Your task to perform on an android device: allow notifications from all sites in the chrome app Image 0: 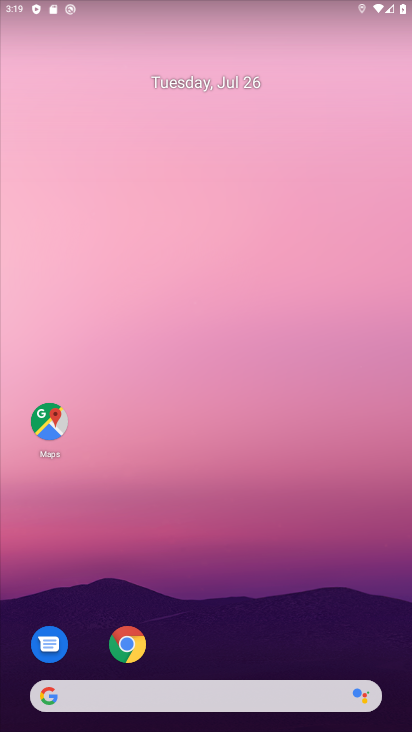
Step 0: click (204, 235)
Your task to perform on an android device: allow notifications from all sites in the chrome app Image 1: 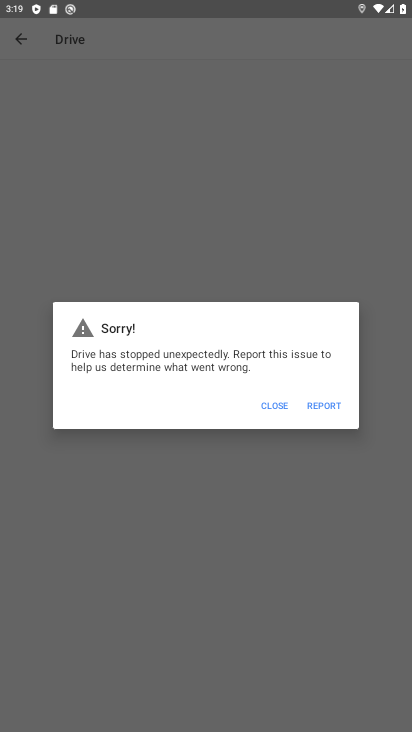
Step 1: press home button
Your task to perform on an android device: allow notifications from all sites in the chrome app Image 2: 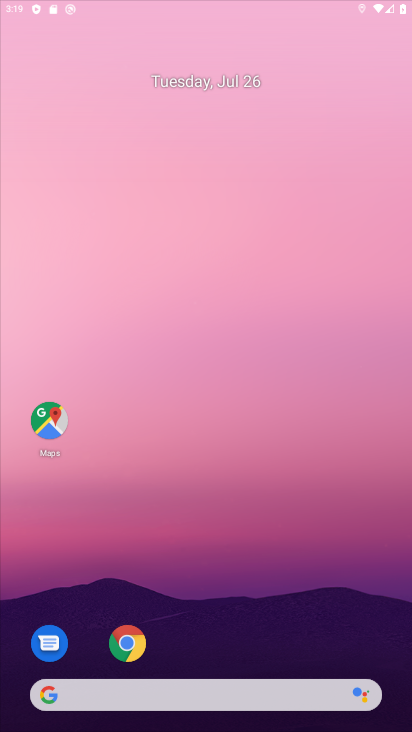
Step 2: drag from (283, 524) to (320, 148)
Your task to perform on an android device: allow notifications from all sites in the chrome app Image 3: 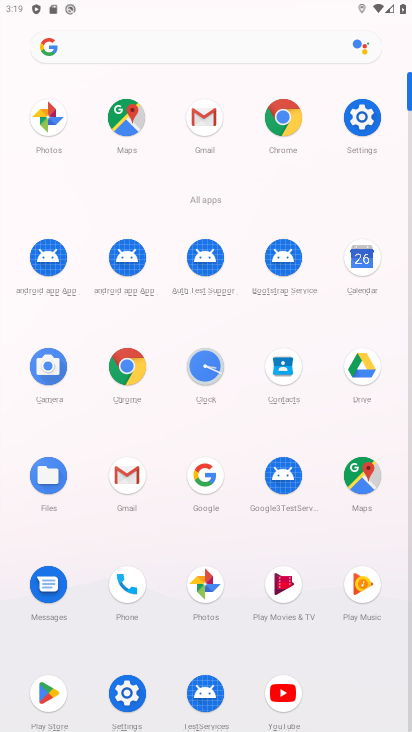
Step 3: click (123, 367)
Your task to perform on an android device: allow notifications from all sites in the chrome app Image 4: 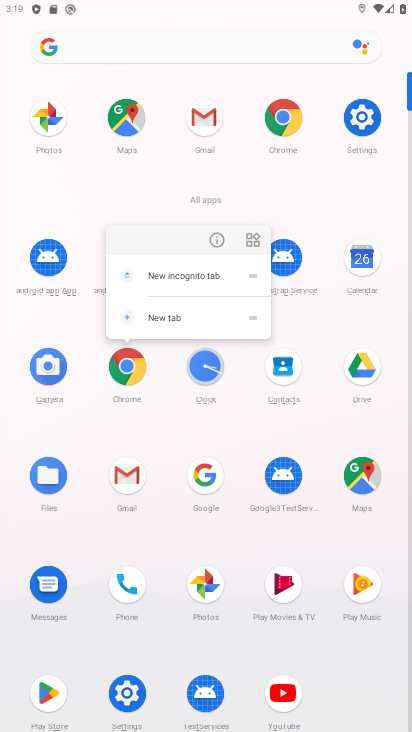
Step 4: click (220, 240)
Your task to perform on an android device: allow notifications from all sites in the chrome app Image 5: 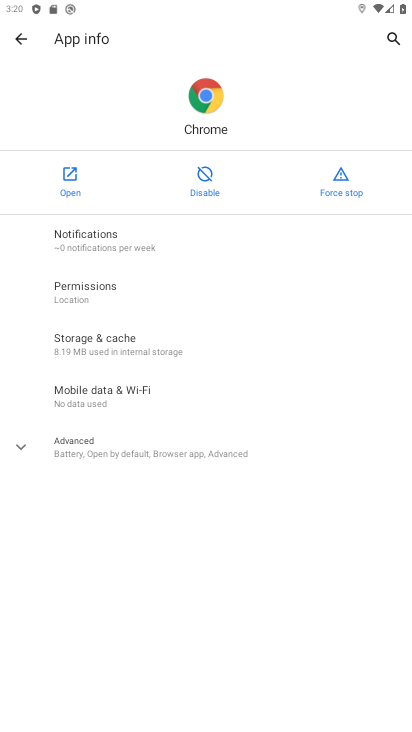
Step 5: click (73, 188)
Your task to perform on an android device: allow notifications from all sites in the chrome app Image 6: 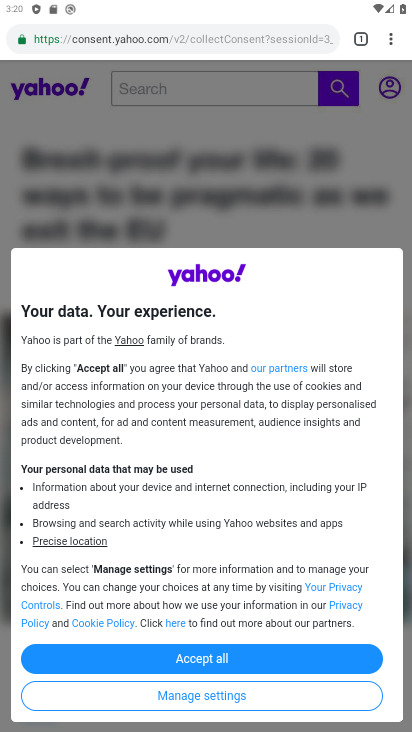
Step 6: drag from (228, 539) to (221, 293)
Your task to perform on an android device: allow notifications from all sites in the chrome app Image 7: 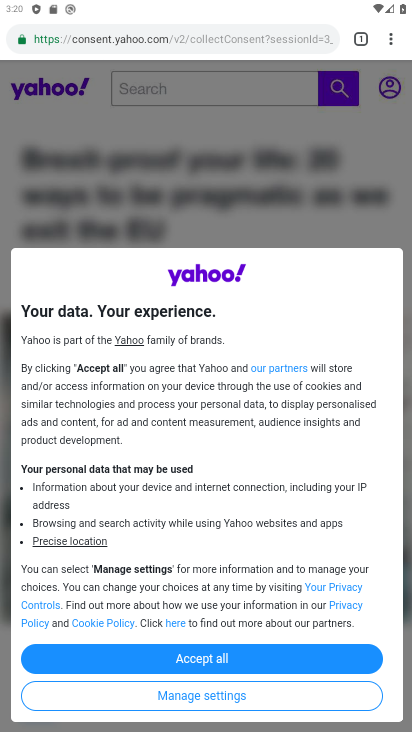
Step 7: drag from (392, 37) to (279, 470)
Your task to perform on an android device: allow notifications from all sites in the chrome app Image 8: 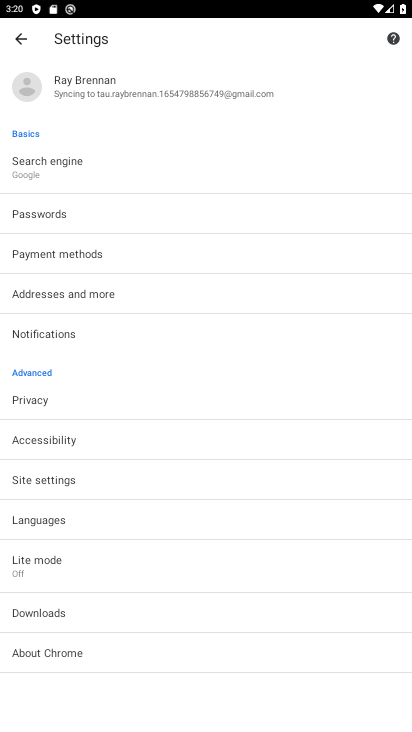
Step 8: click (83, 487)
Your task to perform on an android device: allow notifications from all sites in the chrome app Image 9: 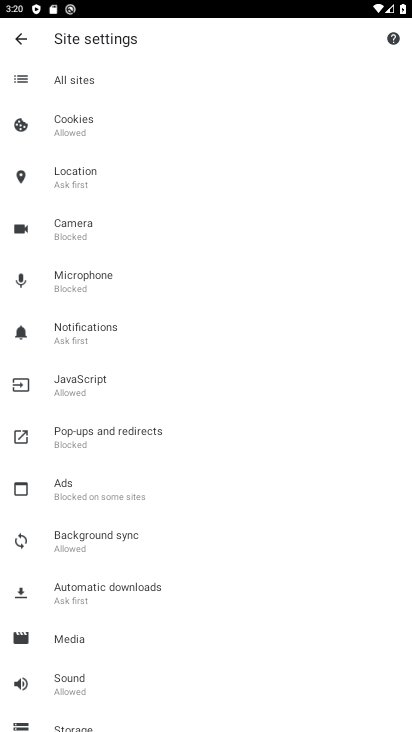
Step 9: click (95, 337)
Your task to perform on an android device: allow notifications from all sites in the chrome app Image 10: 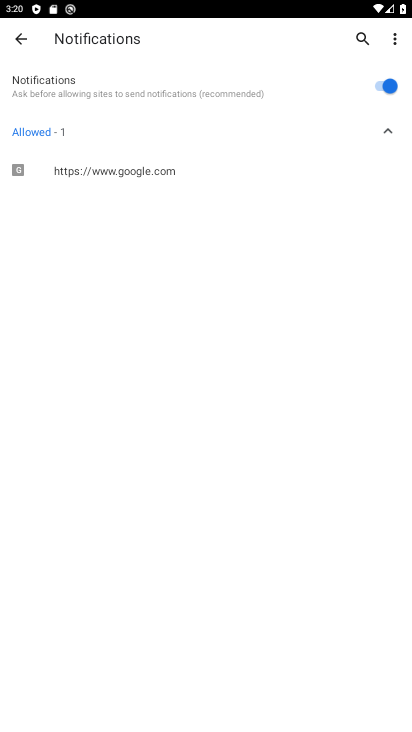
Step 10: task complete